Your task to perform on an android device: install app "Facebook" Image 0: 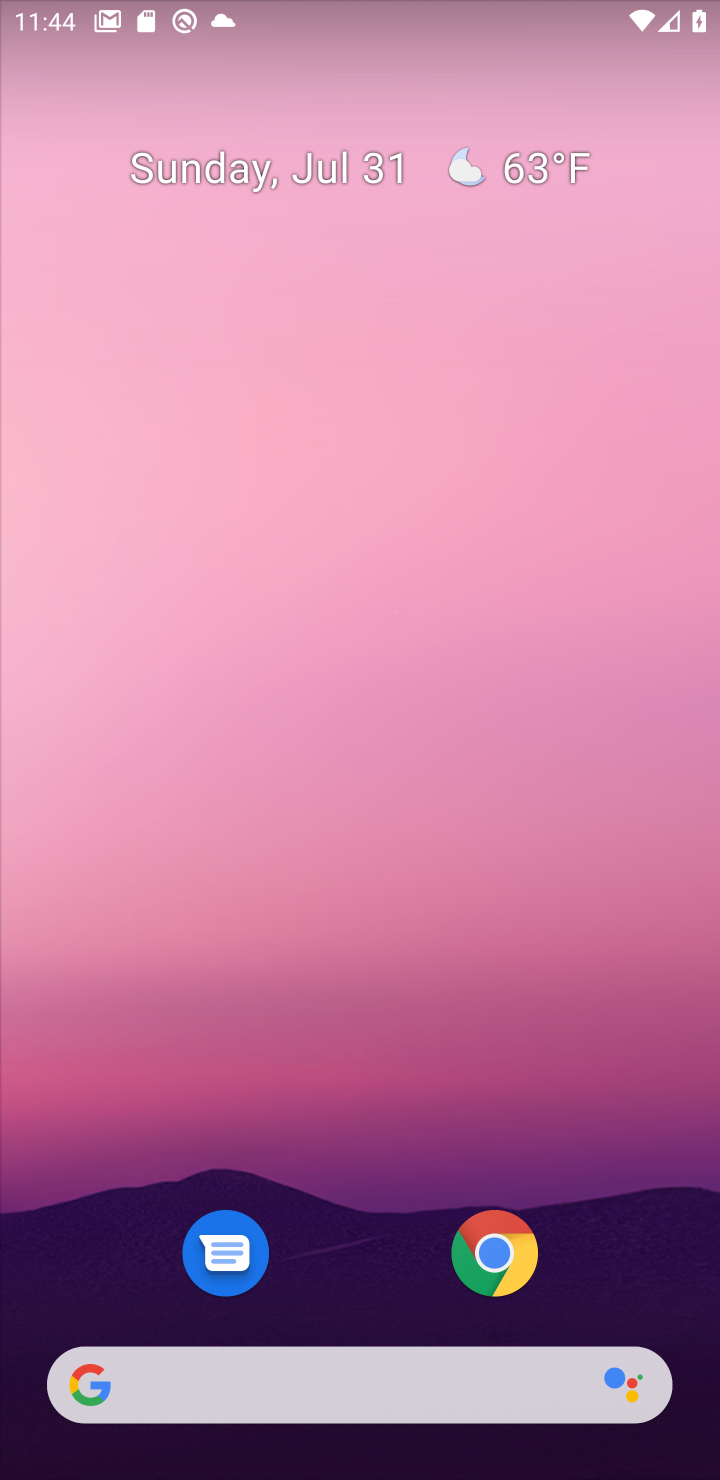
Step 0: drag from (656, 1205) to (624, 120)
Your task to perform on an android device: install app "Facebook" Image 1: 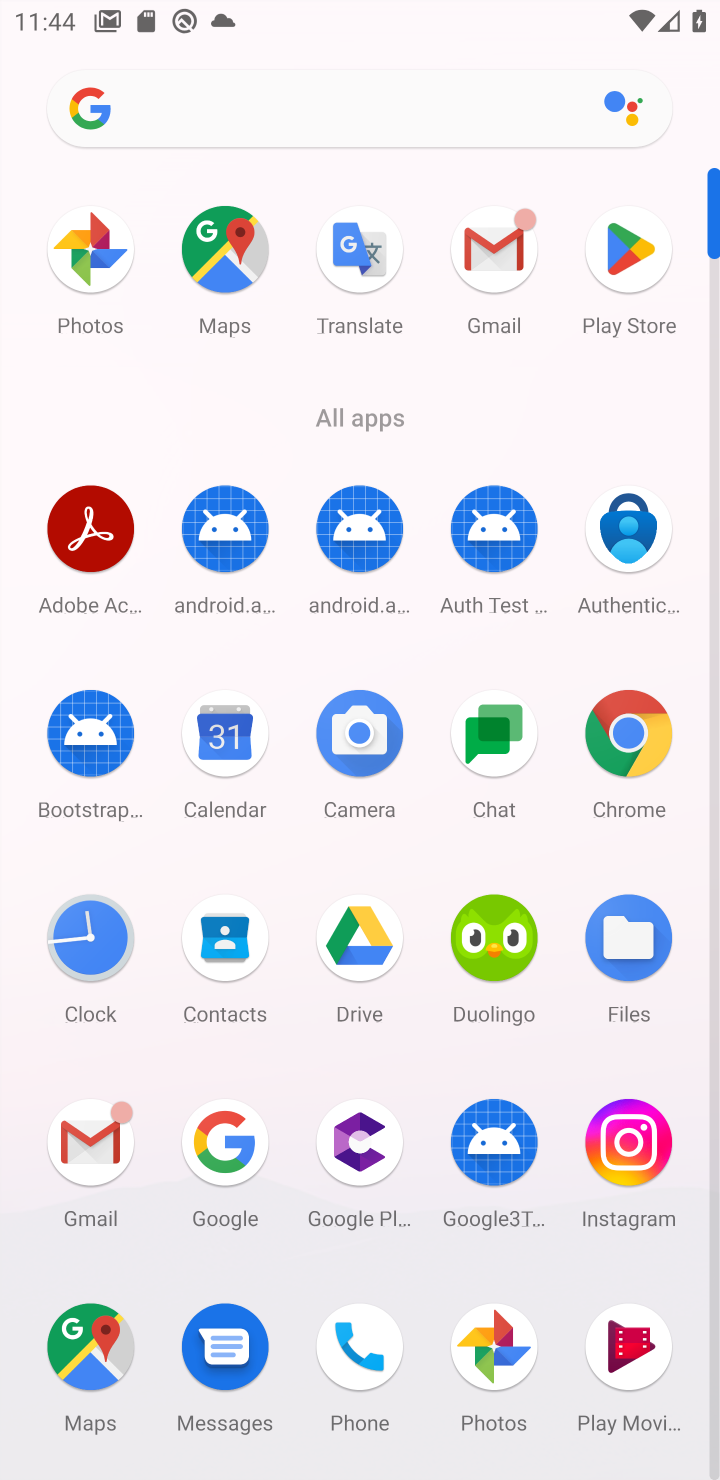
Step 1: click (633, 239)
Your task to perform on an android device: install app "Facebook" Image 2: 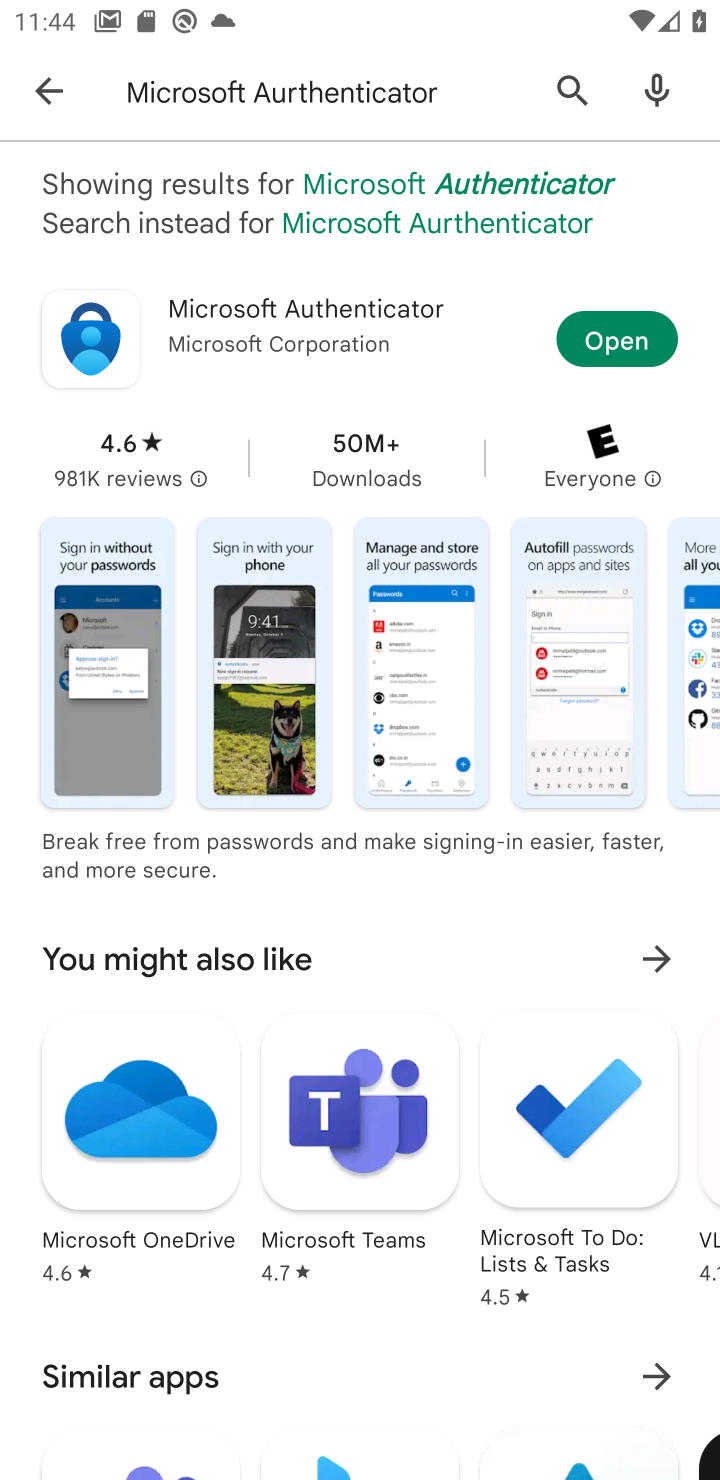
Step 2: click (342, 95)
Your task to perform on an android device: install app "Facebook" Image 3: 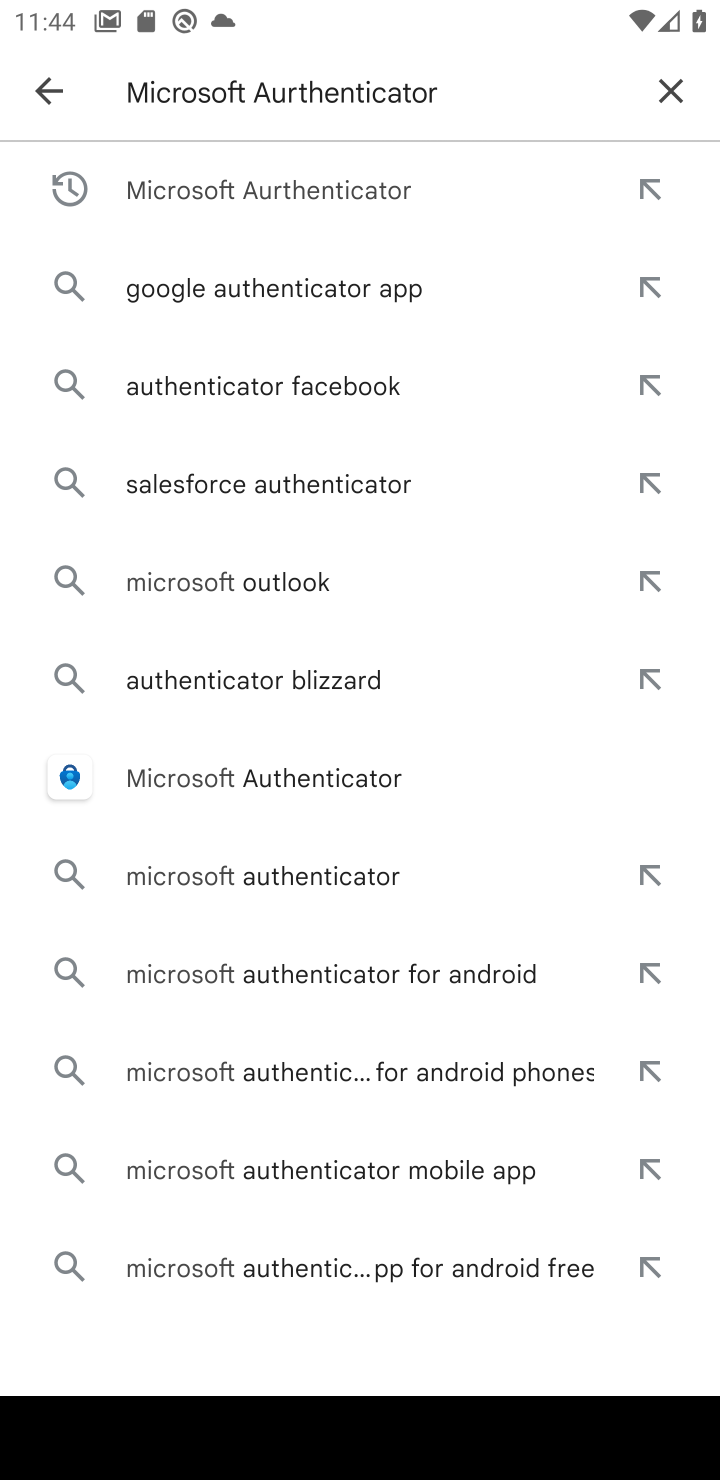
Step 3: click (668, 91)
Your task to perform on an android device: install app "Facebook" Image 4: 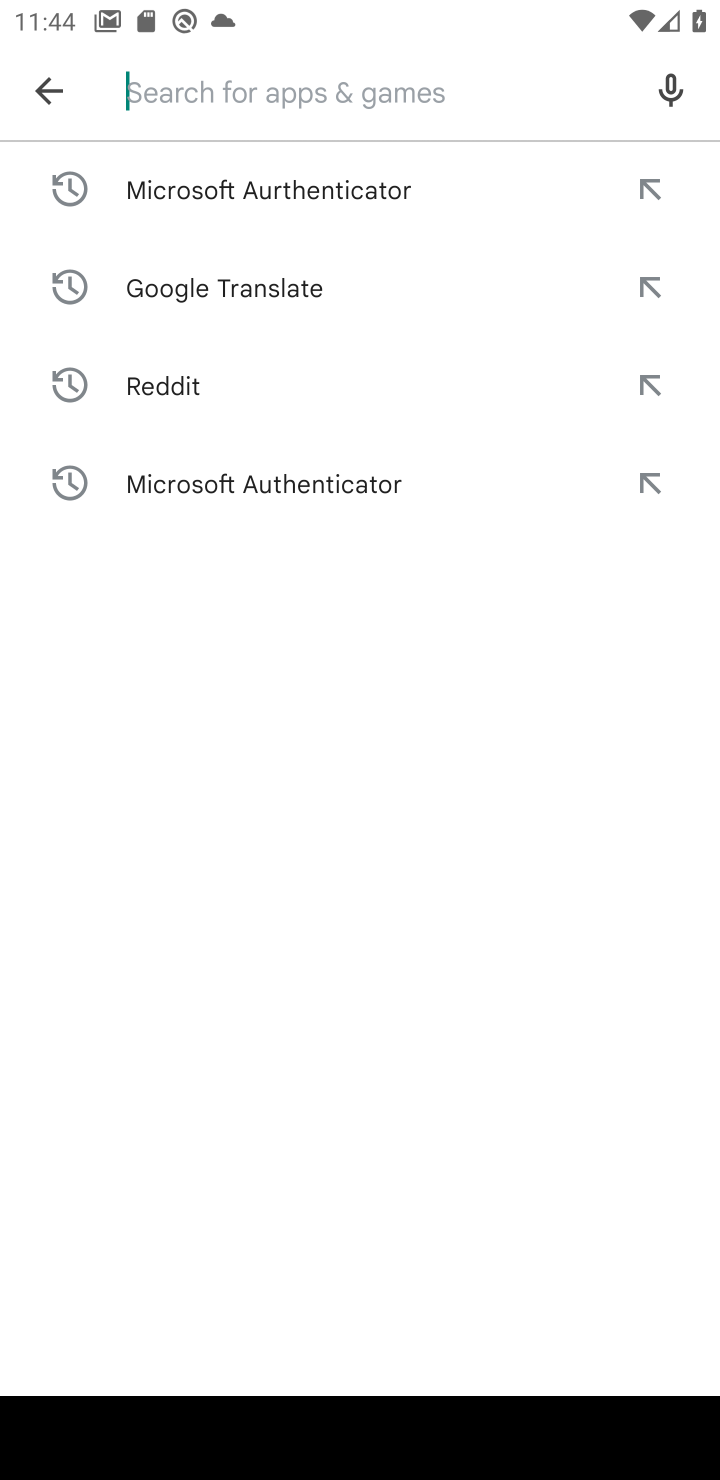
Step 4: type "Facebook"
Your task to perform on an android device: install app "Facebook" Image 5: 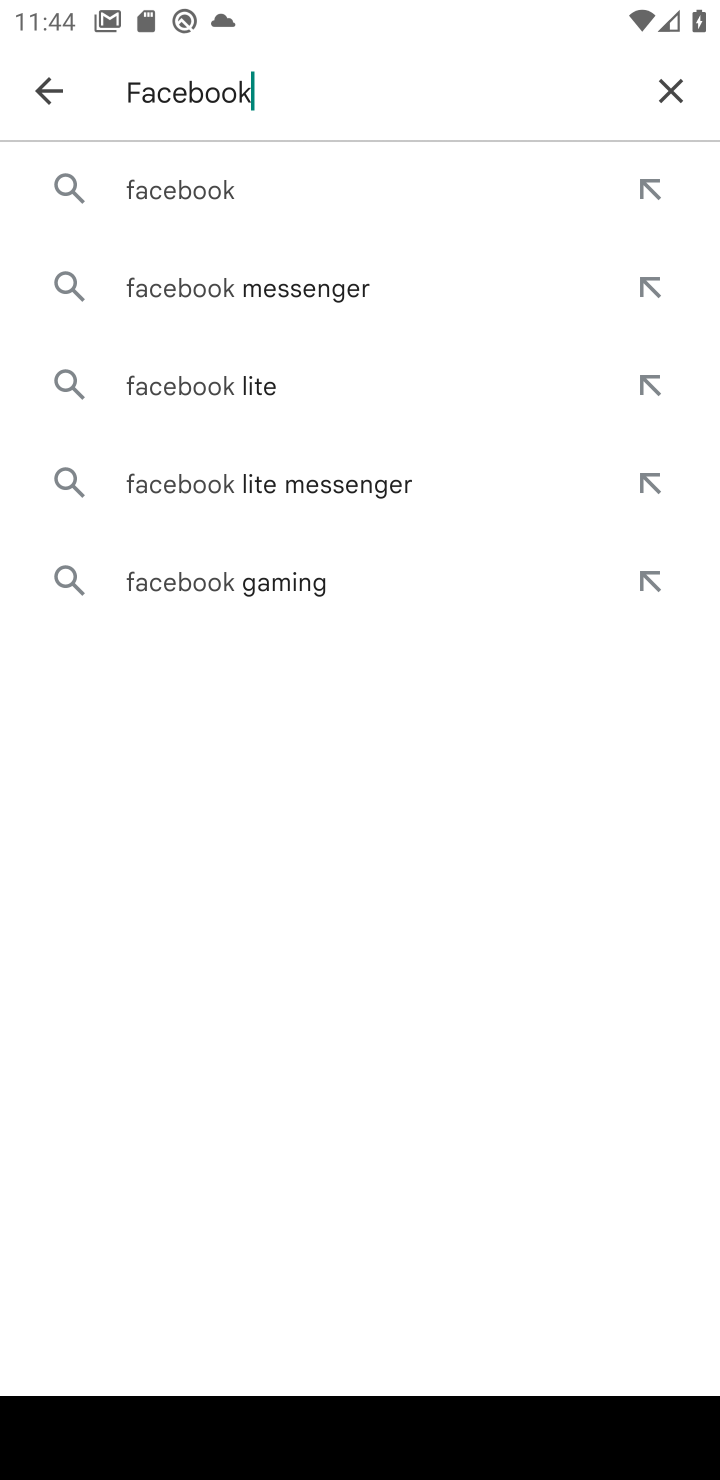
Step 5: press enter
Your task to perform on an android device: install app "Facebook" Image 6: 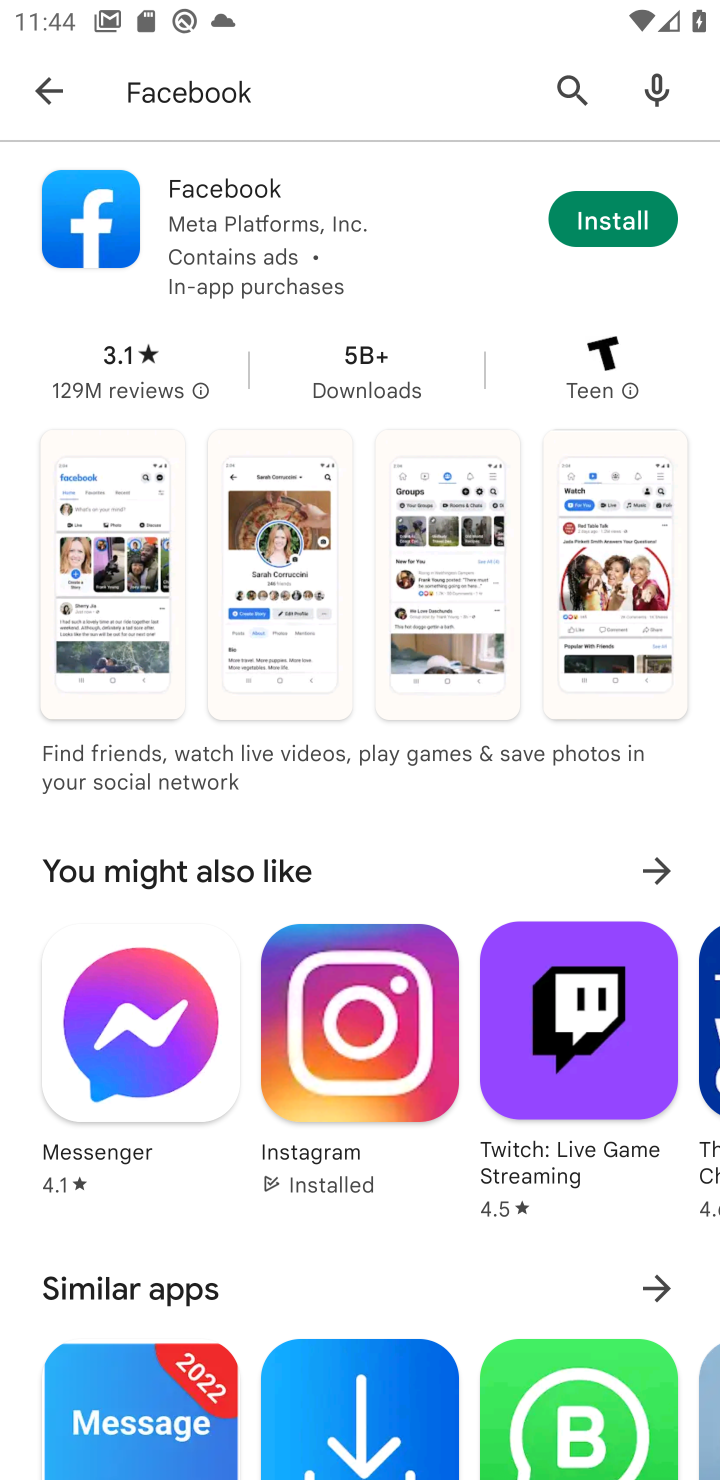
Step 6: click (609, 219)
Your task to perform on an android device: install app "Facebook" Image 7: 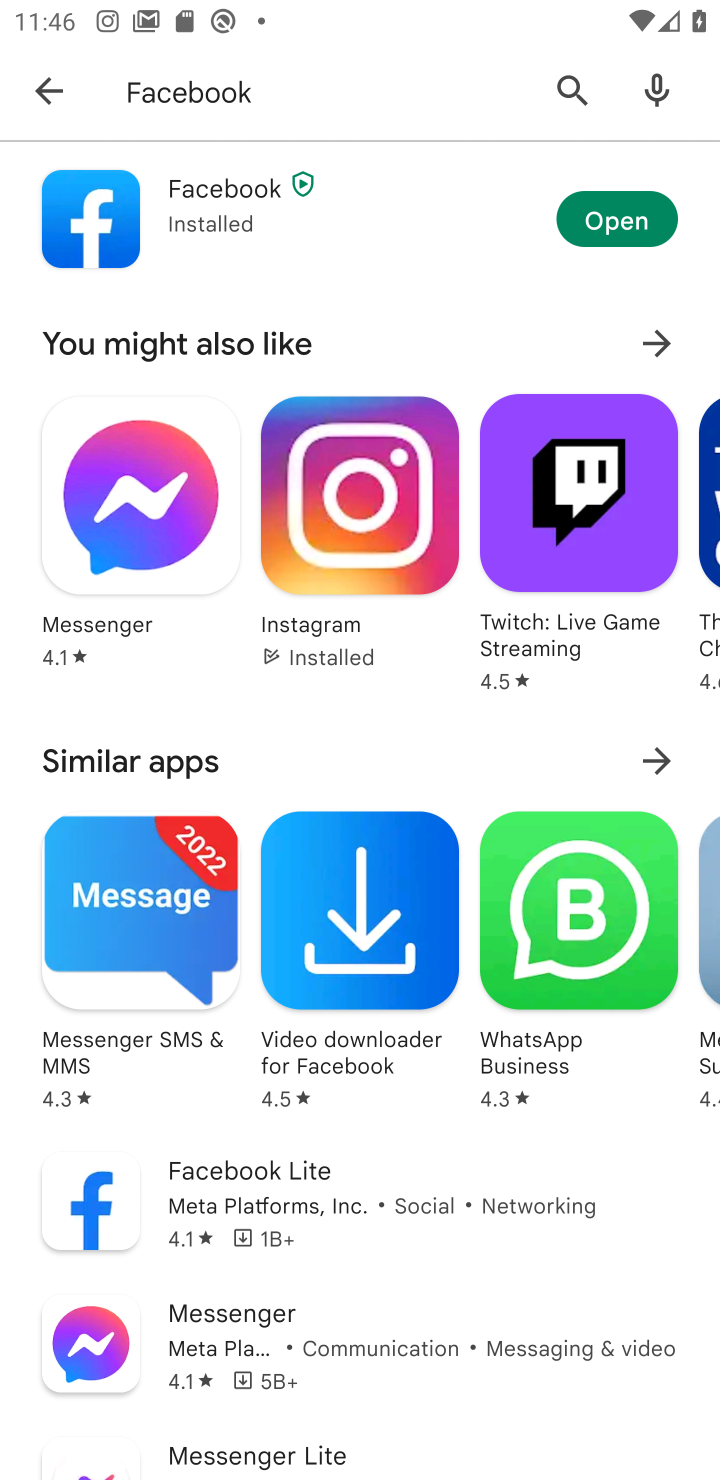
Step 7: task complete